Your task to perform on an android device: Go to settings Image 0: 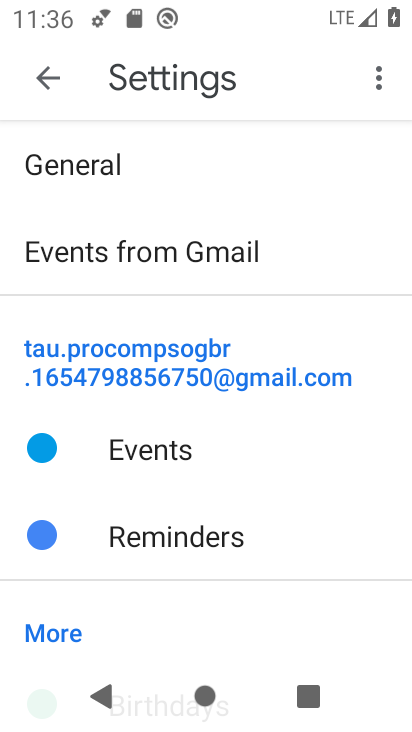
Step 0: press home button
Your task to perform on an android device: Go to settings Image 1: 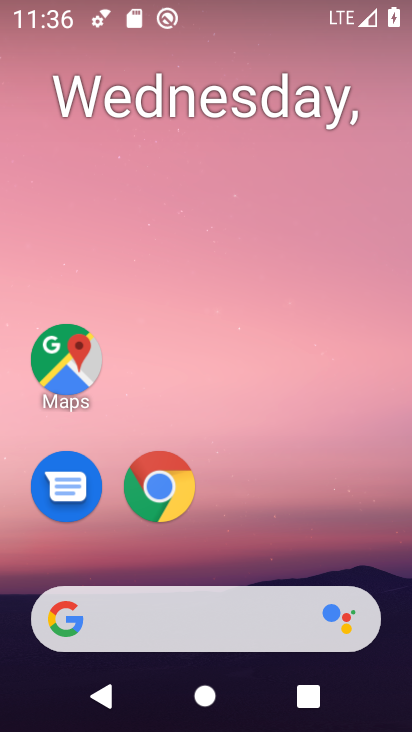
Step 1: drag from (354, 489) to (351, 56)
Your task to perform on an android device: Go to settings Image 2: 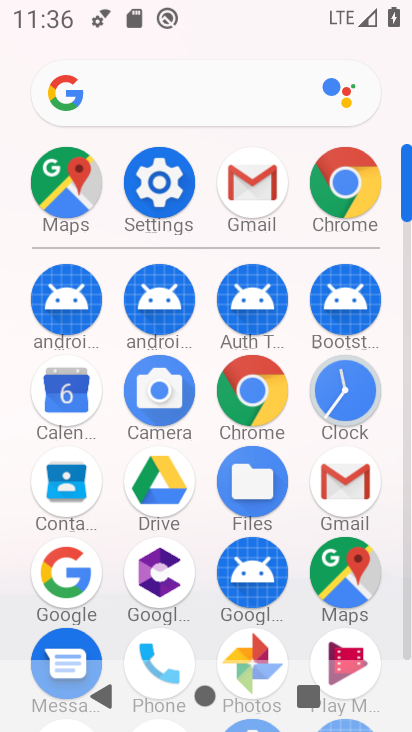
Step 2: click (202, 174)
Your task to perform on an android device: Go to settings Image 3: 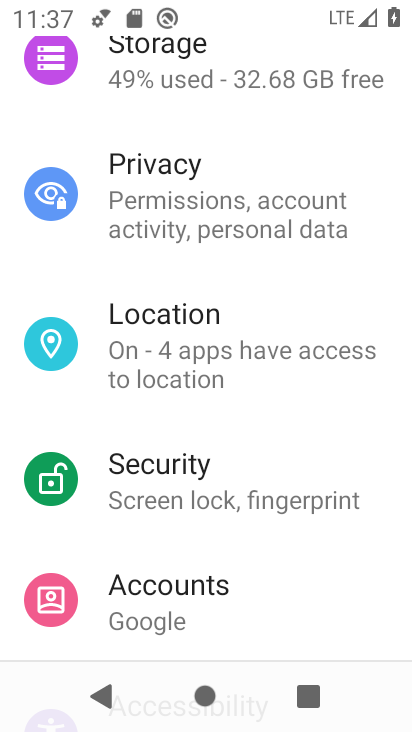
Step 3: task complete